Your task to perform on an android device: Open the calendar and show me this week's events? Image 0: 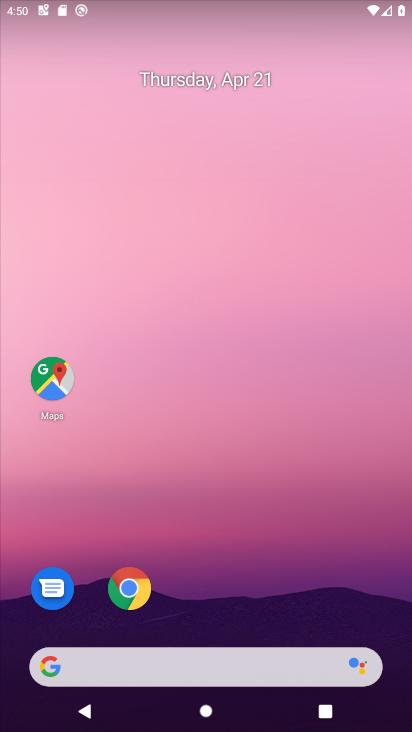
Step 0: click (298, 76)
Your task to perform on an android device: Open the calendar and show me this week's events? Image 1: 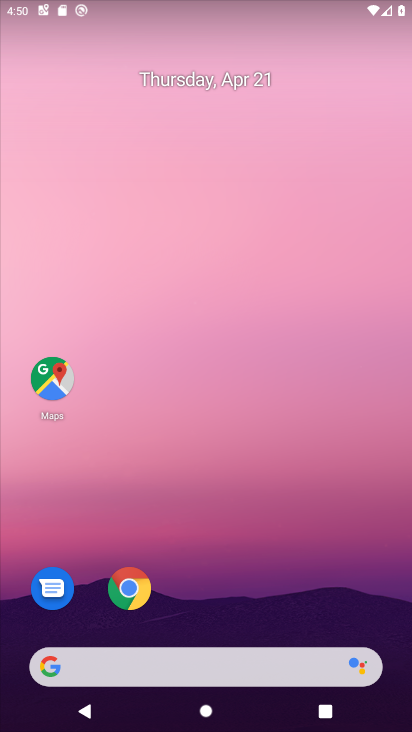
Step 1: click (169, 673)
Your task to perform on an android device: Open the calendar and show me this week's events? Image 2: 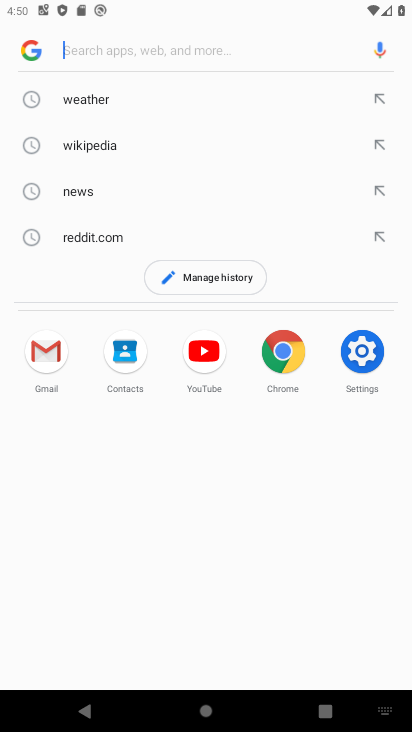
Step 2: press back button
Your task to perform on an android device: Open the calendar and show me this week's events? Image 3: 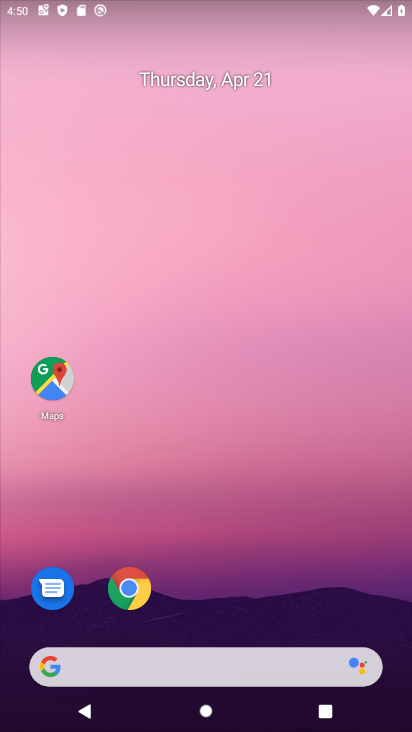
Step 3: drag from (236, 511) to (278, 85)
Your task to perform on an android device: Open the calendar and show me this week's events? Image 4: 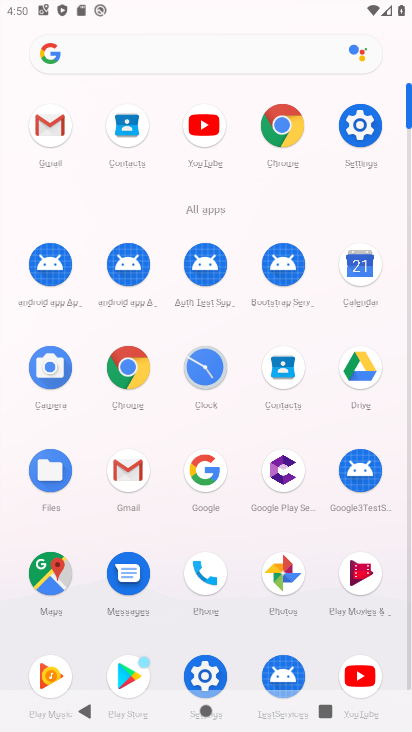
Step 4: click (362, 260)
Your task to perform on an android device: Open the calendar and show me this week's events? Image 5: 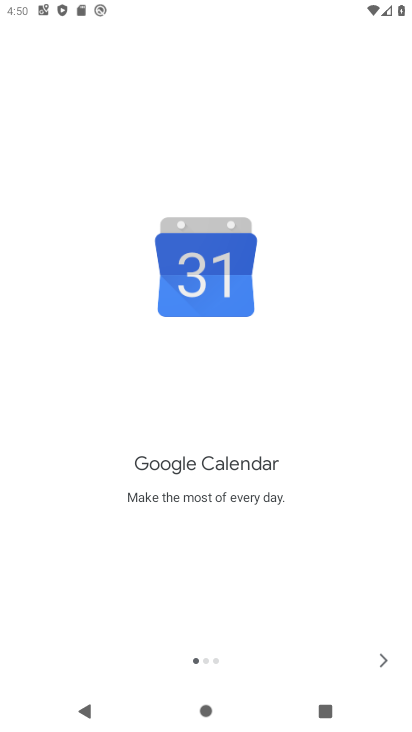
Step 5: click (382, 670)
Your task to perform on an android device: Open the calendar and show me this week's events? Image 6: 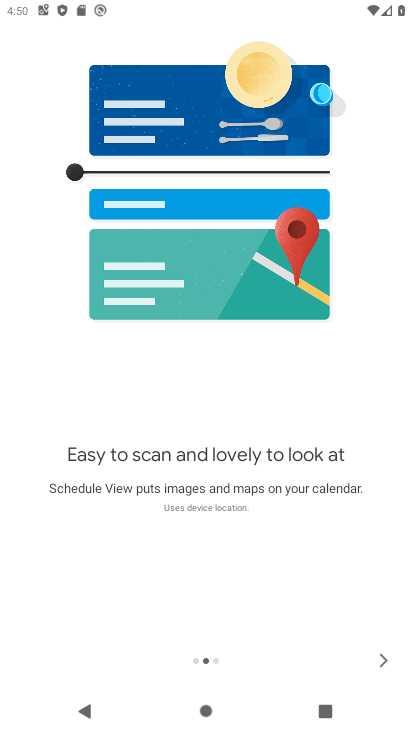
Step 6: click (383, 655)
Your task to perform on an android device: Open the calendar and show me this week's events? Image 7: 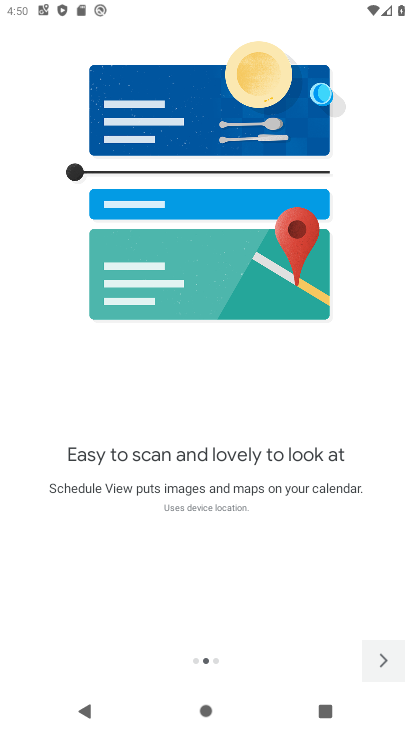
Step 7: click (383, 655)
Your task to perform on an android device: Open the calendar and show me this week's events? Image 8: 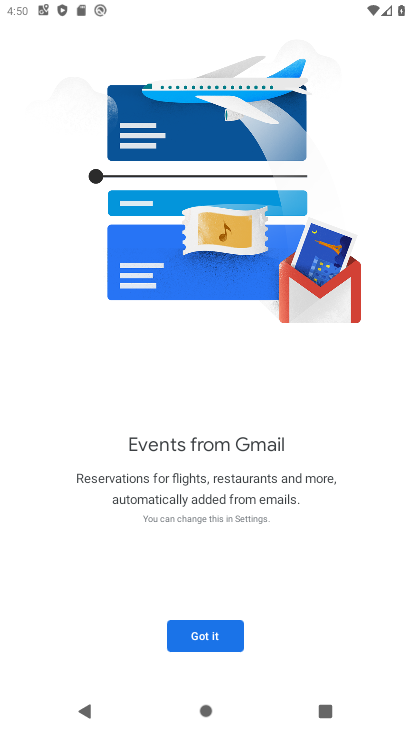
Step 8: click (217, 628)
Your task to perform on an android device: Open the calendar and show me this week's events? Image 9: 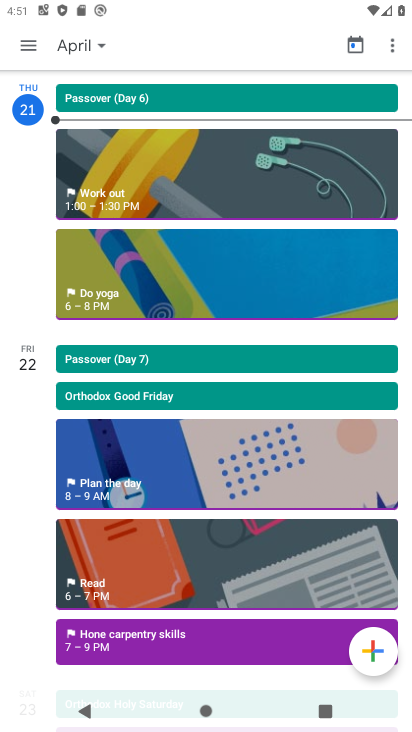
Step 9: task complete